Your task to perform on an android device: Go to notification settings Image 0: 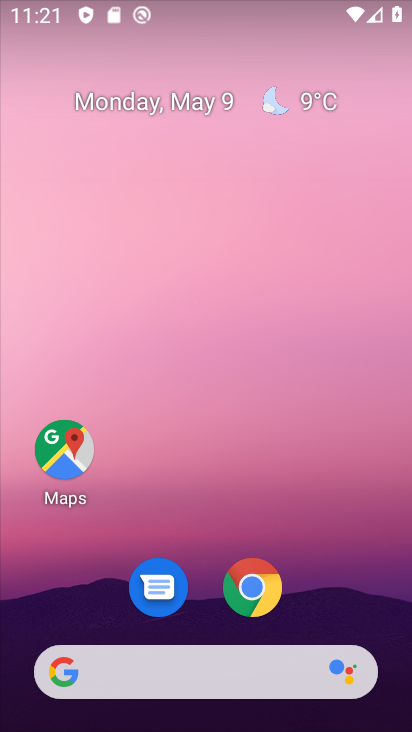
Step 0: drag from (168, 628) to (189, 241)
Your task to perform on an android device: Go to notification settings Image 1: 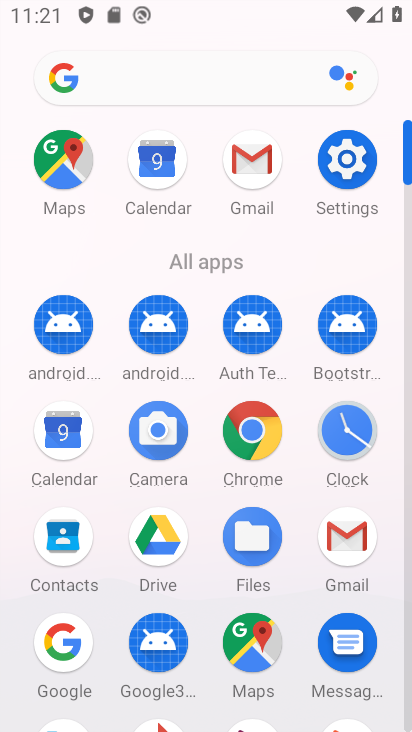
Step 1: click (349, 164)
Your task to perform on an android device: Go to notification settings Image 2: 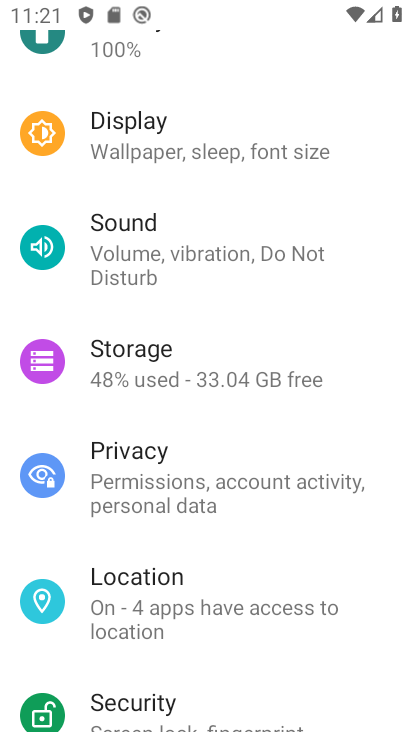
Step 2: drag from (219, 183) to (231, 514)
Your task to perform on an android device: Go to notification settings Image 3: 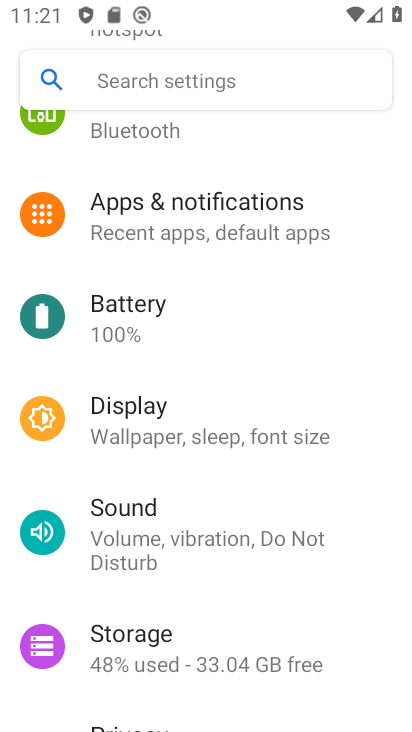
Step 3: click (205, 219)
Your task to perform on an android device: Go to notification settings Image 4: 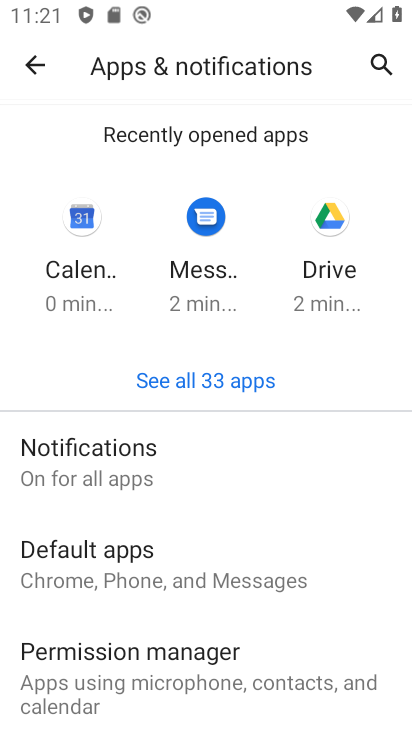
Step 4: click (157, 479)
Your task to perform on an android device: Go to notification settings Image 5: 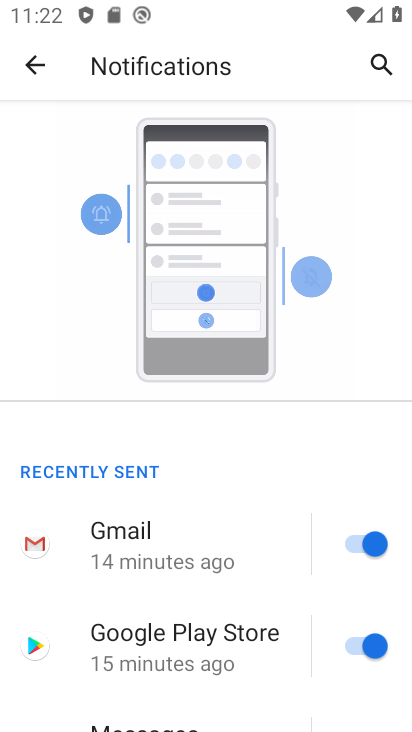
Step 5: drag from (215, 584) to (308, 195)
Your task to perform on an android device: Go to notification settings Image 6: 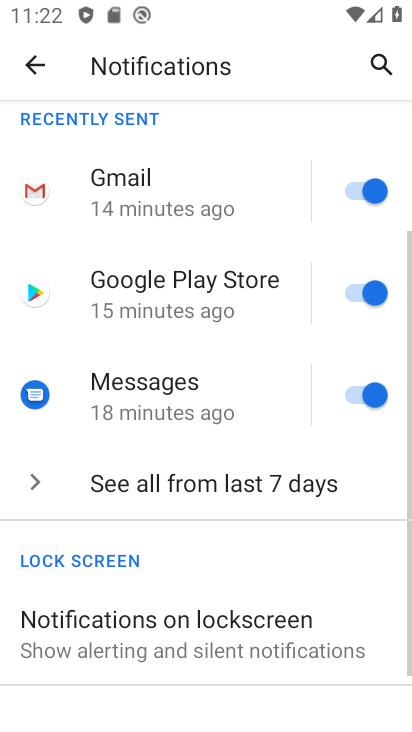
Step 6: drag from (192, 494) to (252, 206)
Your task to perform on an android device: Go to notification settings Image 7: 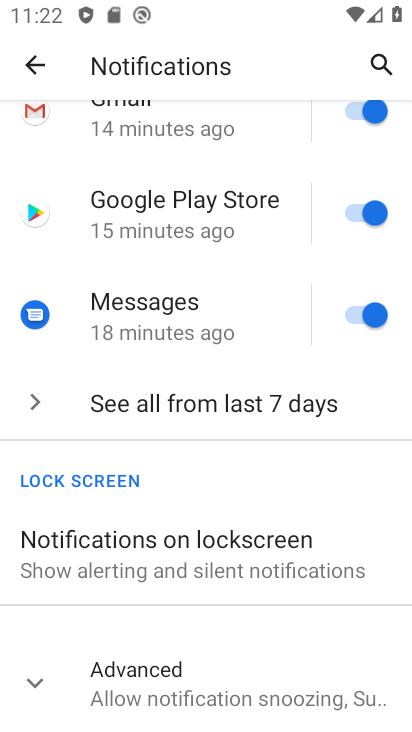
Step 7: click (27, 679)
Your task to perform on an android device: Go to notification settings Image 8: 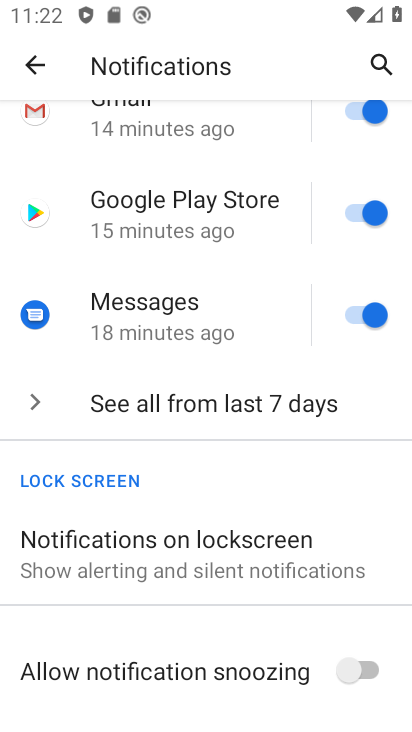
Step 8: task complete